Your task to perform on an android device: toggle javascript in the chrome app Image 0: 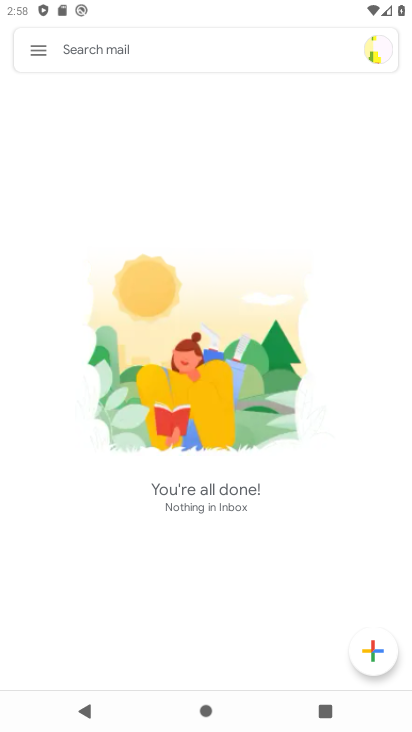
Step 0: press home button
Your task to perform on an android device: toggle javascript in the chrome app Image 1: 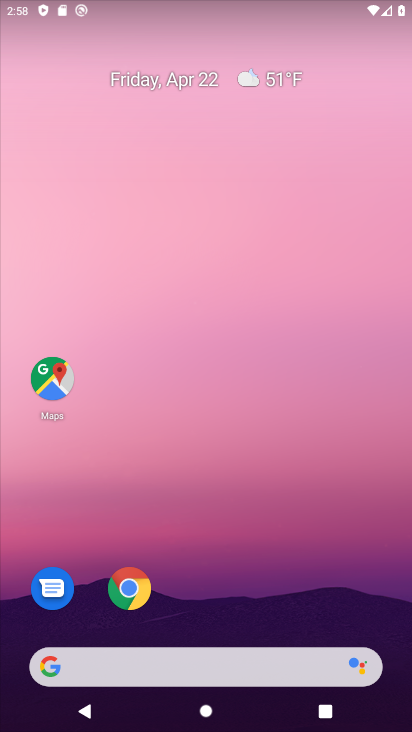
Step 1: drag from (356, 590) to (385, 114)
Your task to perform on an android device: toggle javascript in the chrome app Image 2: 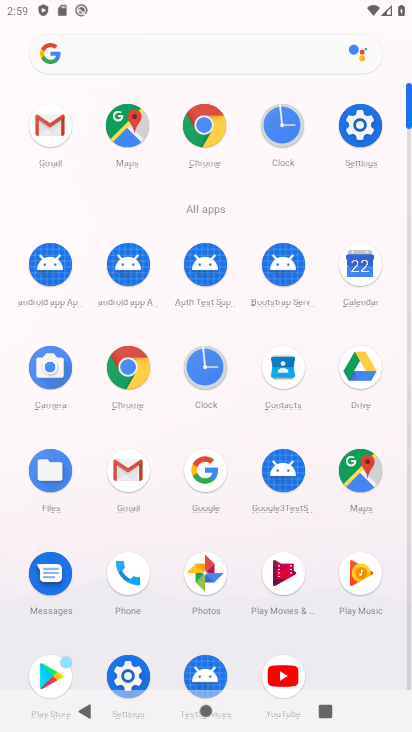
Step 2: click (136, 371)
Your task to perform on an android device: toggle javascript in the chrome app Image 3: 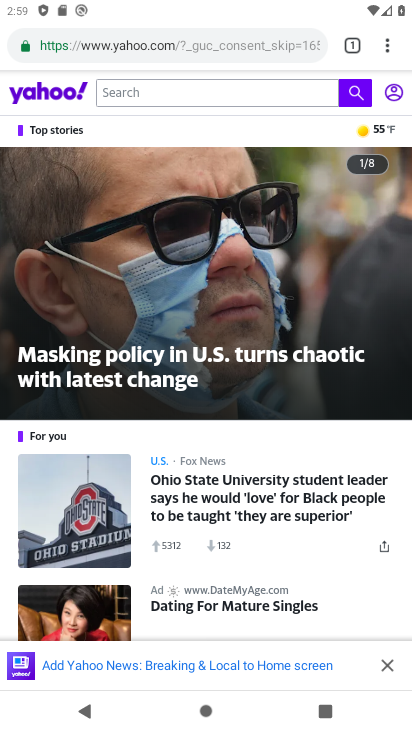
Step 3: click (388, 48)
Your task to perform on an android device: toggle javascript in the chrome app Image 4: 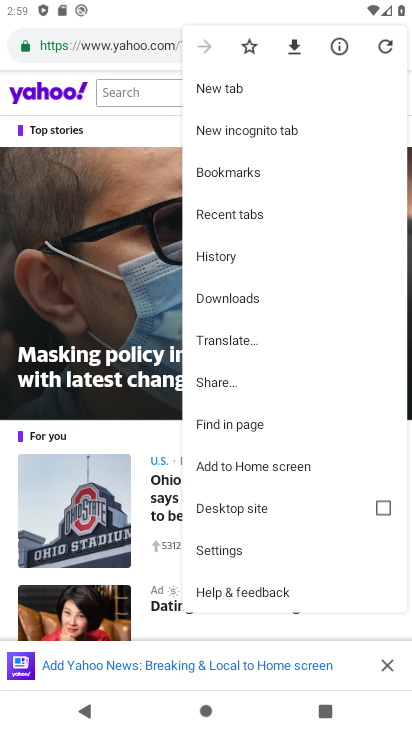
Step 4: click (233, 547)
Your task to perform on an android device: toggle javascript in the chrome app Image 5: 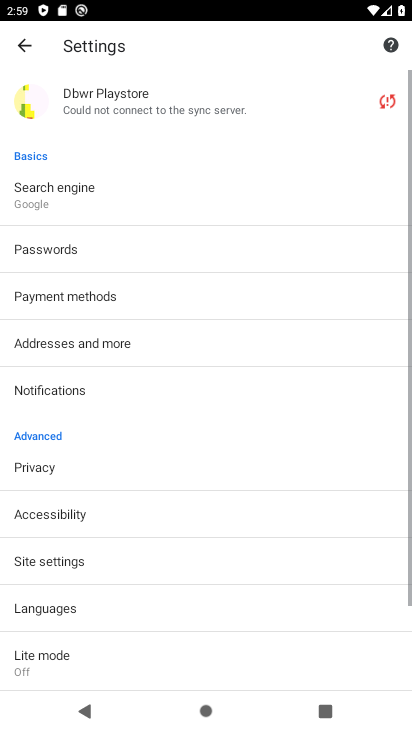
Step 5: drag from (243, 568) to (271, 390)
Your task to perform on an android device: toggle javascript in the chrome app Image 6: 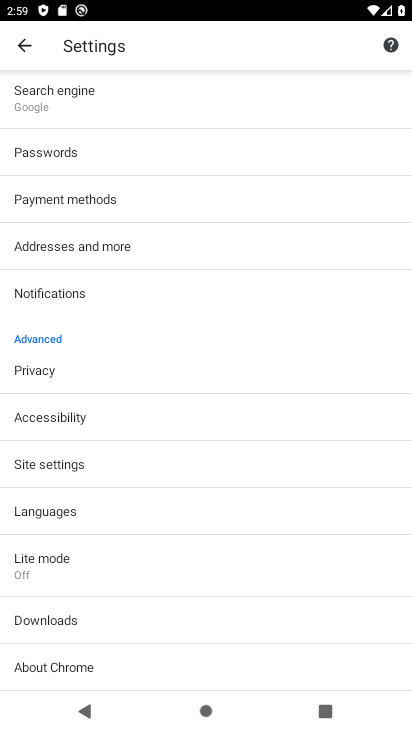
Step 6: drag from (265, 621) to (282, 430)
Your task to perform on an android device: toggle javascript in the chrome app Image 7: 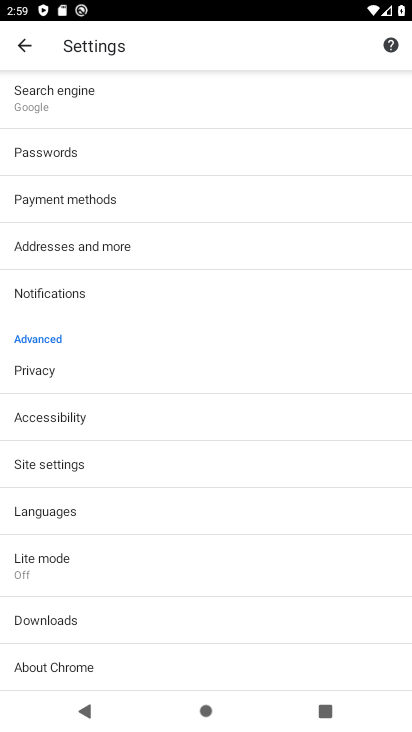
Step 7: drag from (295, 298) to (266, 460)
Your task to perform on an android device: toggle javascript in the chrome app Image 8: 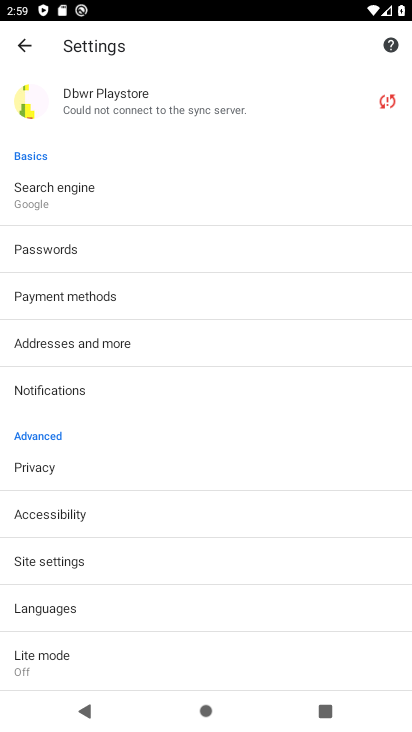
Step 8: click (142, 552)
Your task to perform on an android device: toggle javascript in the chrome app Image 9: 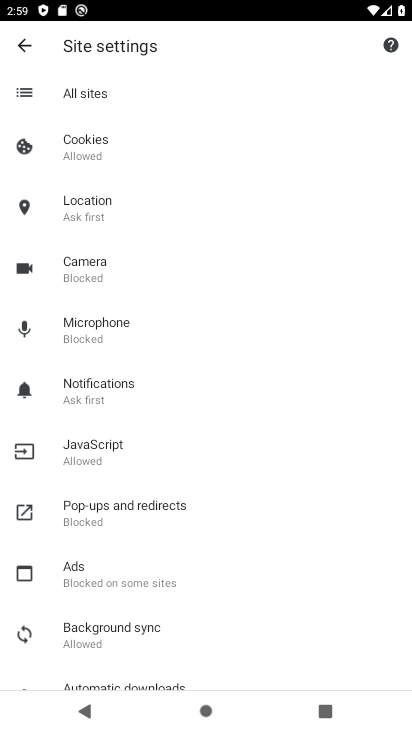
Step 9: drag from (284, 298) to (282, 451)
Your task to perform on an android device: toggle javascript in the chrome app Image 10: 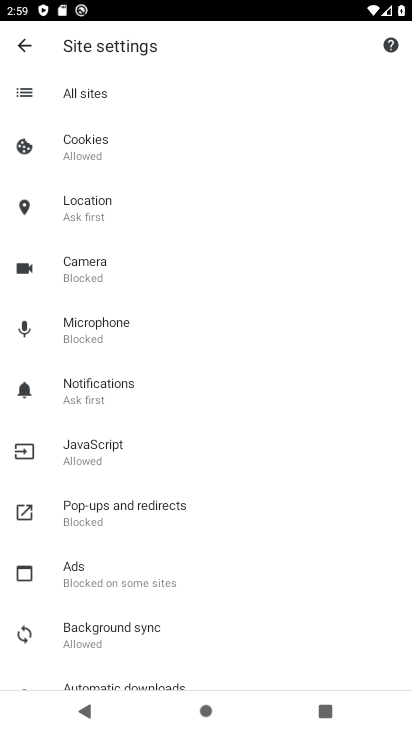
Step 10: drag from (265, 536) to (277, 257)
Your task to perform on an android device: toggle javascript in the chrome app Image 11: 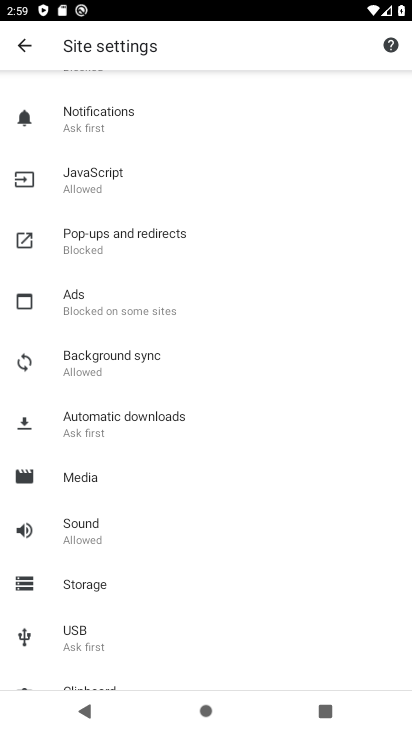
Step 11: drag from (251, 558) to (260, 363)
Your task to perform on an android device: toggle javascript in the chrome app Image 12: 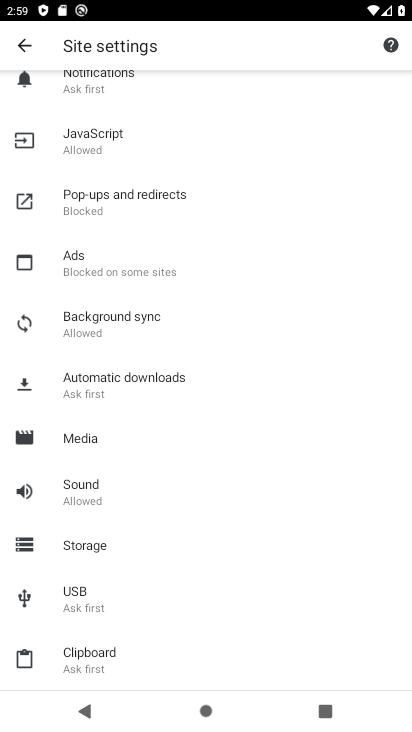
Step 12: drag from (254, 282) to (244, 432)
Your task to perform on an android device: toggle javascript in the chrome app Image 13: 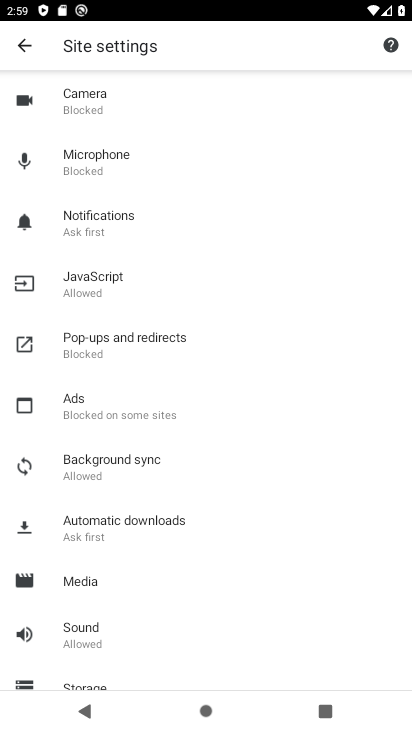
Step 13: click (88, 292)
Your task to perform on an android device: toggle javascript in the chrome app Image 14: 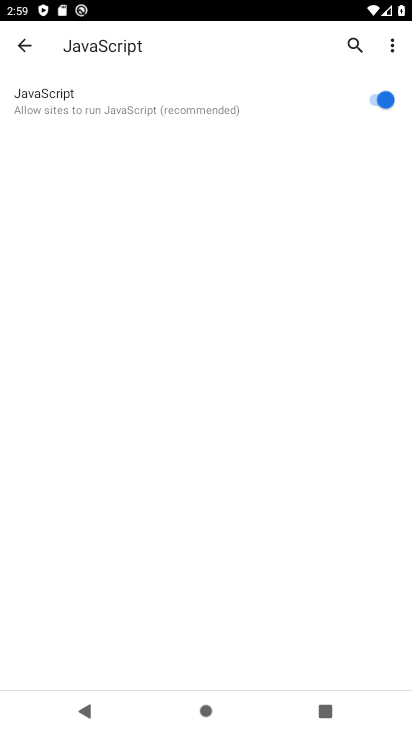
Step 14: click (381, 102)
Your task to perform on an android device: toggle javascript in the chrome app Image 15: 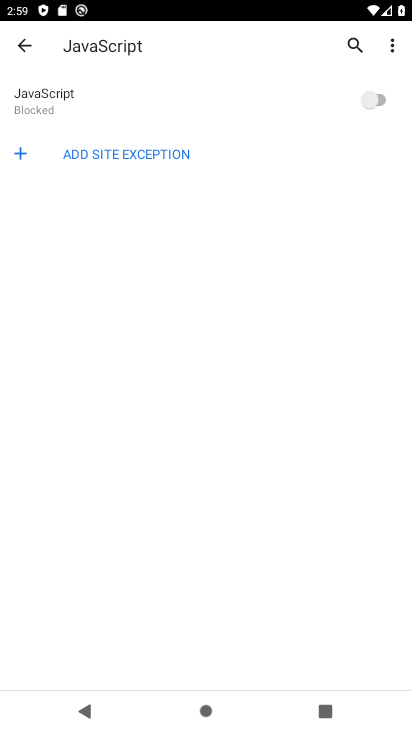
Step 15: task complete